Your task to perform on an android device: turn off notifications in google photos Image 0: 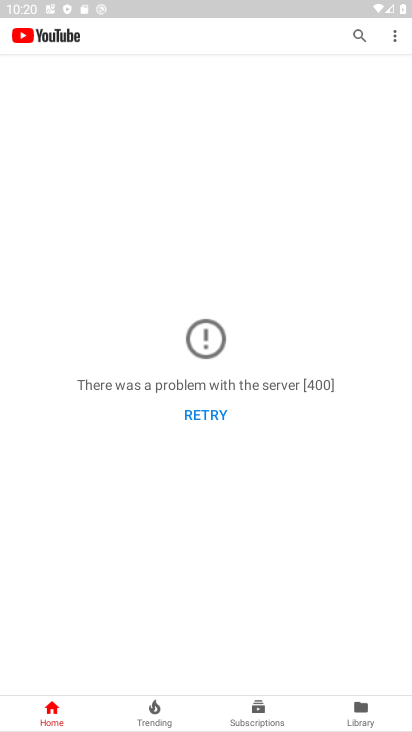
Step 0: press home button
Your task to perform on an android device: turn off notifications in google photos Image 1: 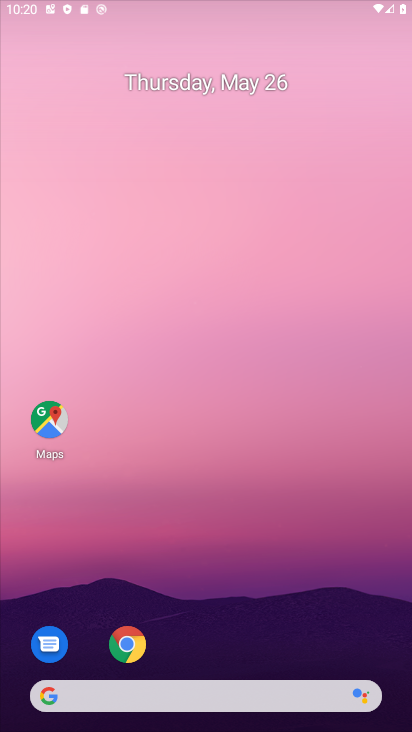
Step 1: drag from (390, 626) to (227, 67)
Your task to perform on an android device: turn off notifications in google photos Image 2: 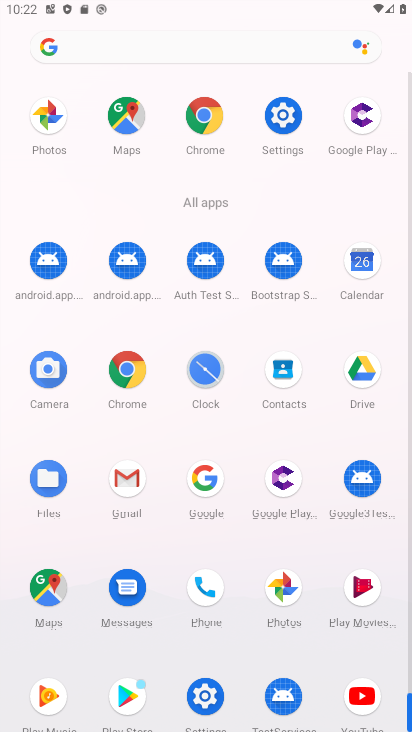
Step 2: click (293, 589)
Your task to perform on an android device: turn off notifications in google photos Image 3: 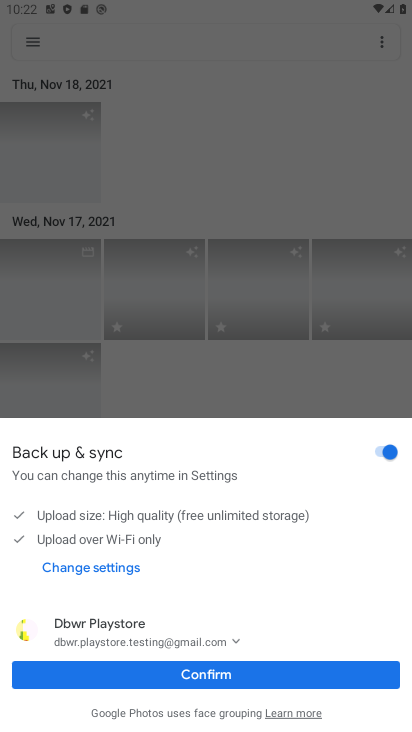
Step 3: click (217, 674)
Your task to perform on an android device: turn off notifications in google photos Image 4: 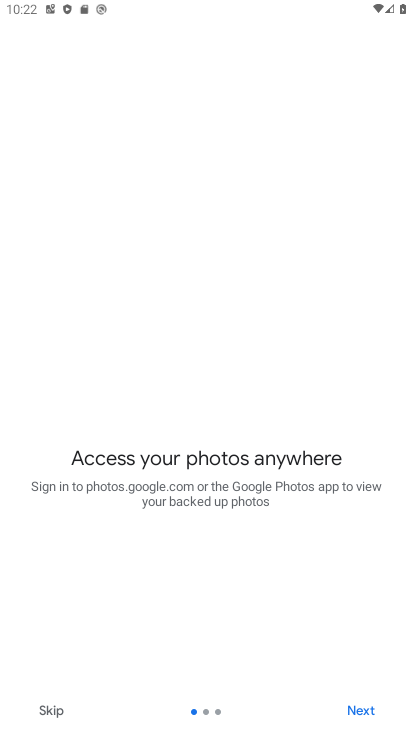
Step 4: click (36, 47)
Your task to perform on an android device: turn off notifications in google photos Image 5: 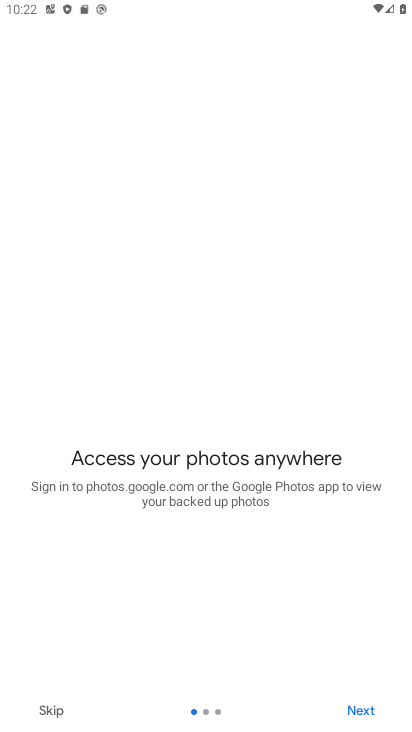
Step 5: click (367, 695)
Your task to perform on an android device: turn off notifications in google photos Image 6: 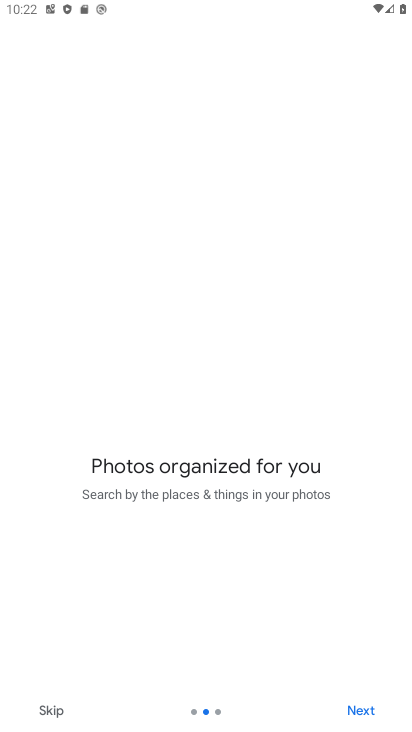
Step 6: click (366, 701)
Your task to perform on an android device: turn off notifications in google photos Image 7: 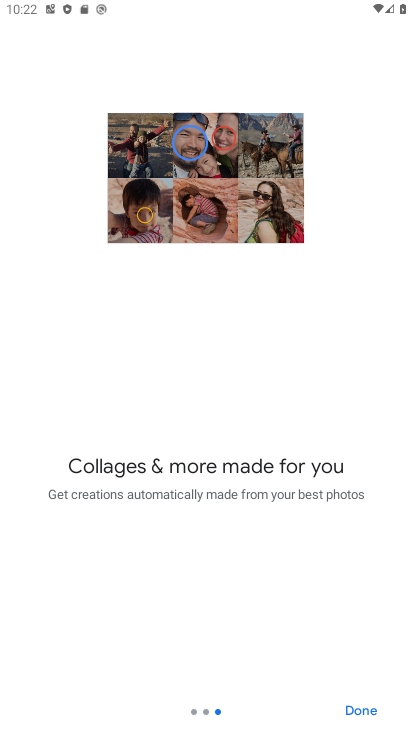
Step 7: click (356, 705)
Your task to perform on an android device: turn off notifications in google photos Image 8: 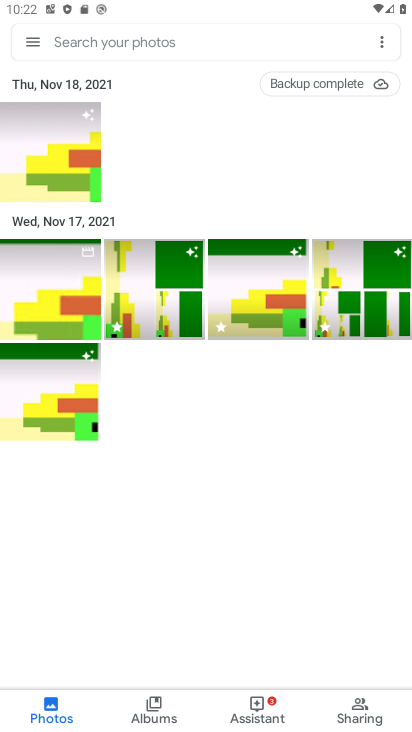
Step 8: click (24, 48)
Your task to perform on an android device: turn off notifications in google photos Image 9: 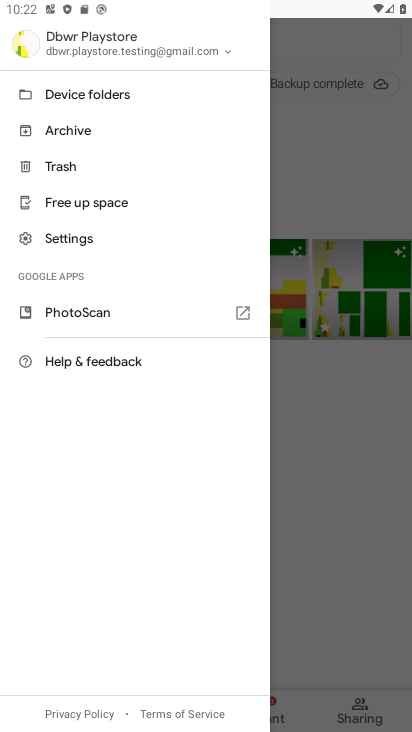
Step 9: click (91, 250)
Your task to perform on an android device: turn off notifications in google photos Image 10: 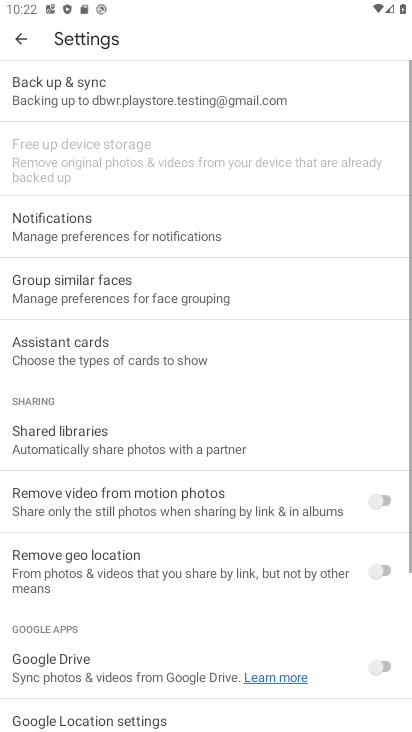
Step 10: click (91, 249)
Your task to perform on an android device: turn off notifications in google photos Image 11: 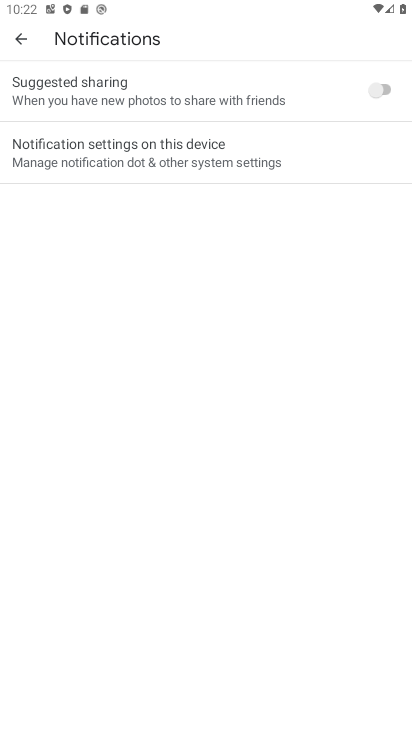
Step 11: task complete